Your task to perform on an android device: create a new album in the google photos Image 0: 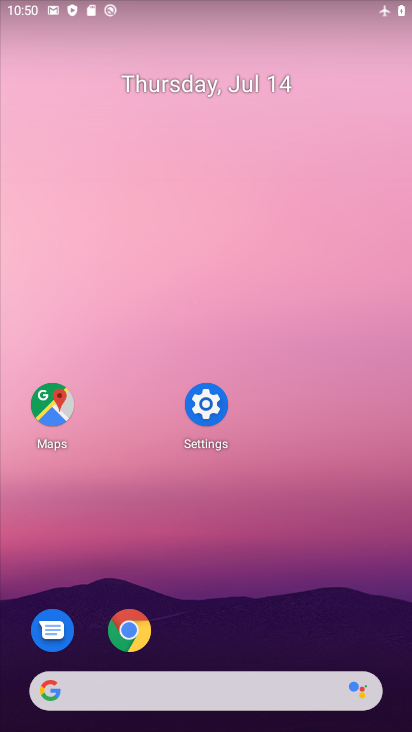
Step 0: drag from (382, 662) to (276, 220)
Your task to perform on an android device: create a new album in the google photos Image 1: 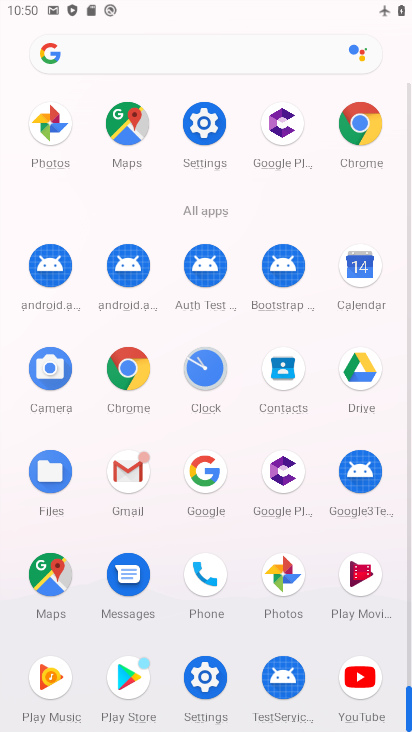
Step 1: click (281, 582)
Your task to perform on an android device: create a new album in the google photos Image 2: 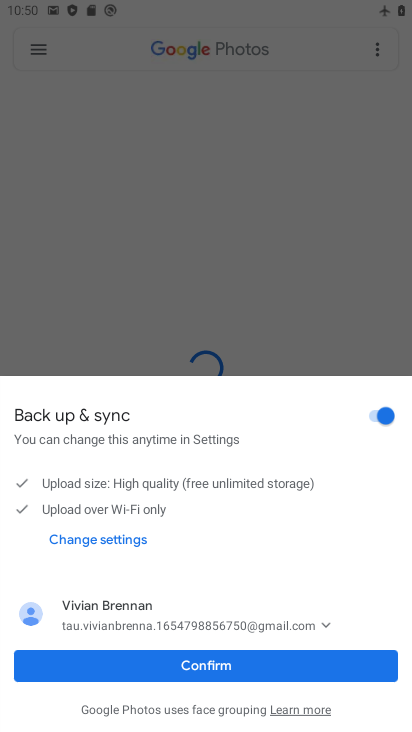
Step 2: click (258, 656)
Your task to perform on an android device: create a new album in the google photos Image 3: 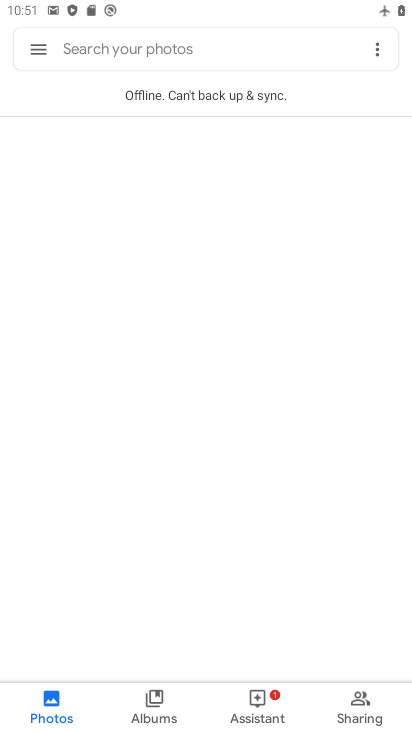
Step 3: task complete